Your task to perform on an android device: open a new tab in the chrome app Image 0: 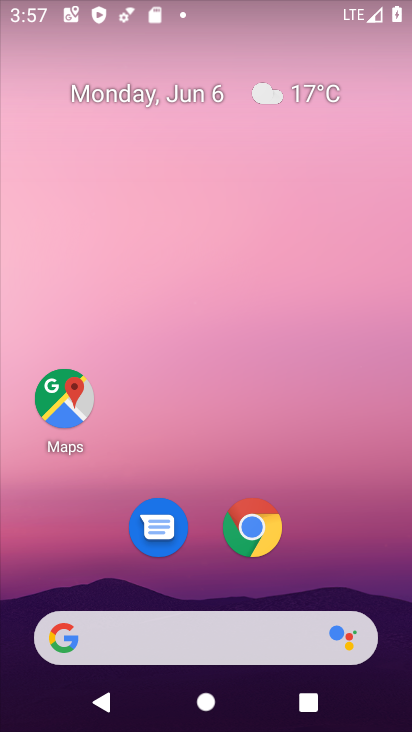
Step 0: click (250, 529)
Your task to perform on an android device: open a new tab in the chrome app Image 1: 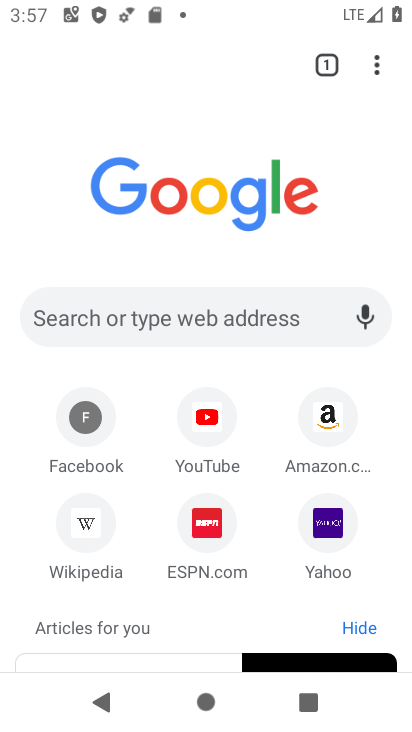
Step 1: click (376, 60)
Your task to perform on an android device: open a new tab in the chrome app Image 2: 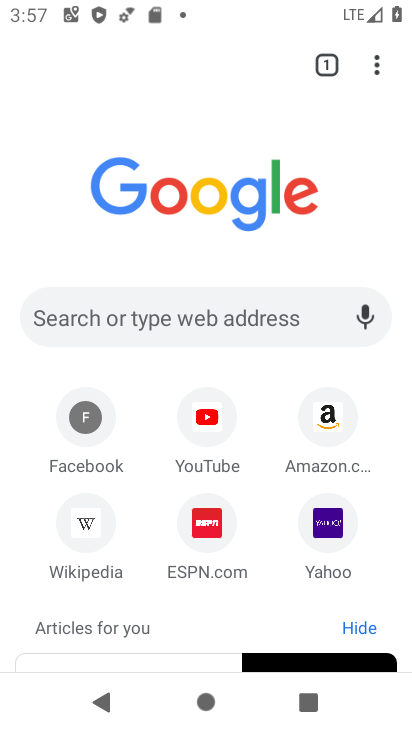
Step 2: click (368, 66)
Your task to perform on an android device: open a new tab in the chrome app Image 3: 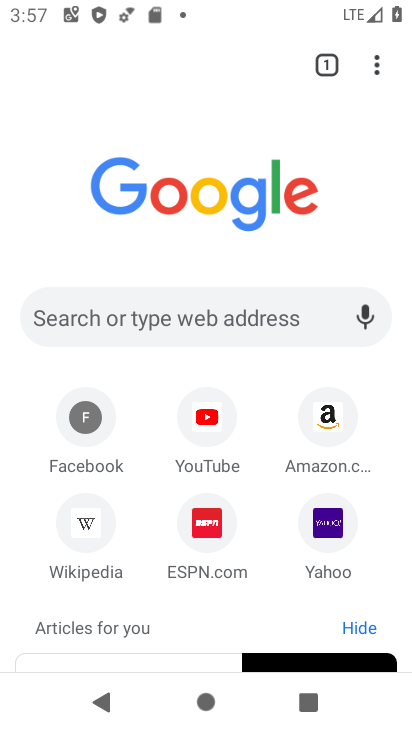
Step 3: click (380, 72)
Your task to perform on an android device: open a new tab in the chrome app Image 4: 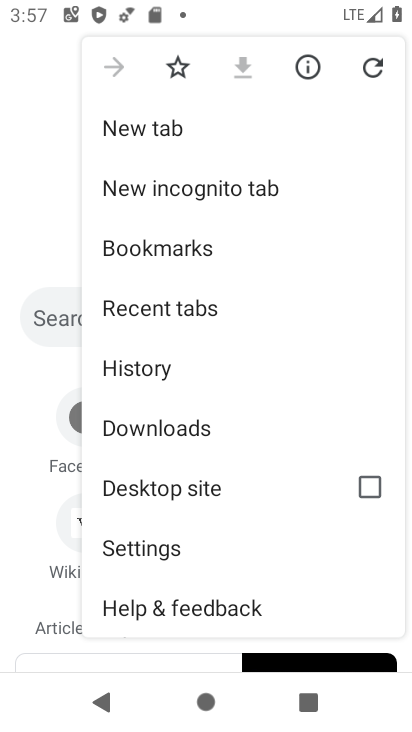
Step 4: click (154, 125)
Your task to perform on an android device: open a new tab in the chrome app Image 5: 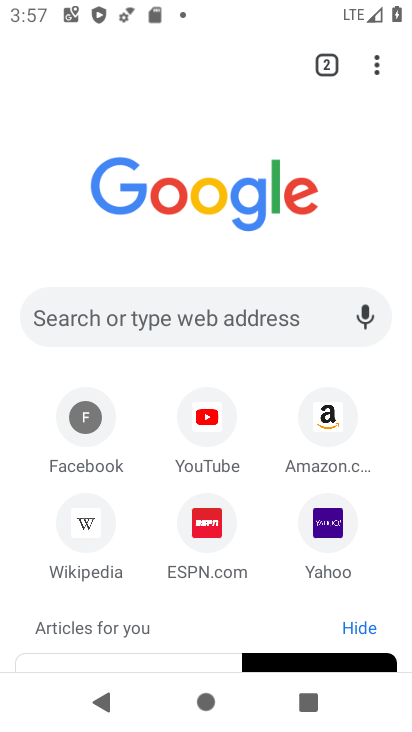
Step 5: task complete